Your task to perform on an android device: Clear the shopping cart on walmart. Add "bose soundlink" to the cart on walmart Image 0: 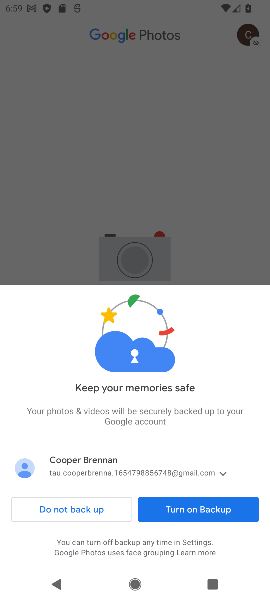
Step 0: press home button
Your task to perform on an android device: Clear the shopping cart on walmart. Add "bose soundlink" to the cart on walmart Image 1: 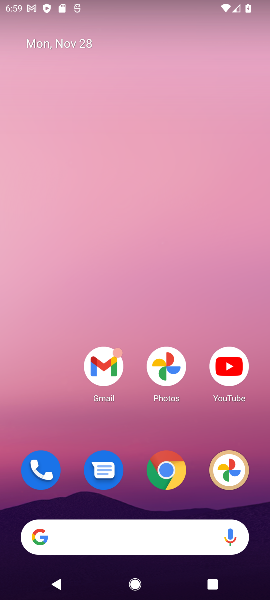
Step 1: click (168, 471)
Your task to perform on an android device: Clear the shopping cart on walmart. Add "bose soundlink" to the cart on walmart Image 2: 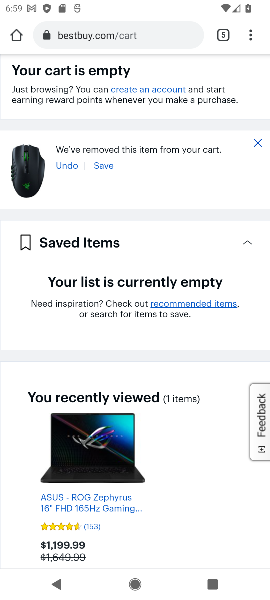
Step 2: click (90, 36)
Your task to perform on an android device: Clear the shopping cart on walmart. Add "bose soundlink" to the cart on walmart Image 3: 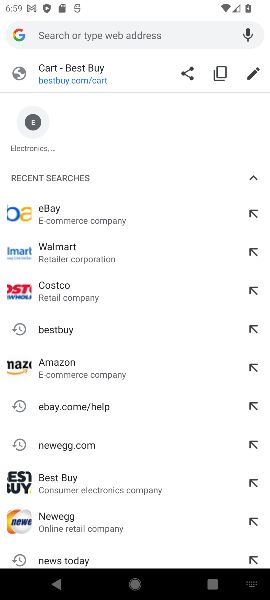
Step 3: click (54, 250)
Your task to perform on an android device: Clear the shopping cart on walmart. Add "bose soundlink" to the cart on walmart Image 4: 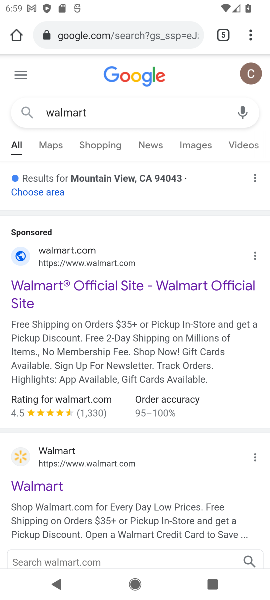
Step 4: click (59, 460)
Your task to perform on an android device: Clear the shopping cart on walmart. Add "bose soundlink" to the cart on walmart Image 5: 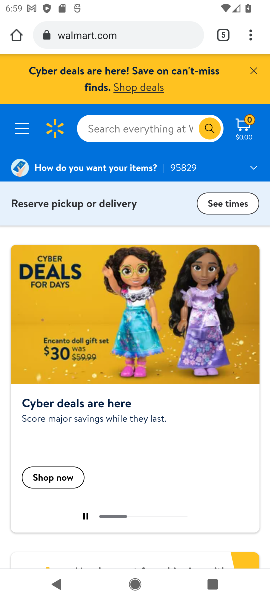
Step 5: click (245, 122)
Your task to perform on an android device: Clear the shopping cart on walmart. Add "bose soundlink" to the cart on walmart Image 6: 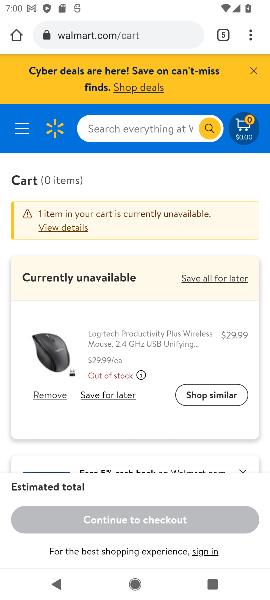
Step 6: click (138, 128)
Your task to perform on an android device: Clear the shopping cart on walmart. Add "bose soundlink" to the cart on walmart Image 7: 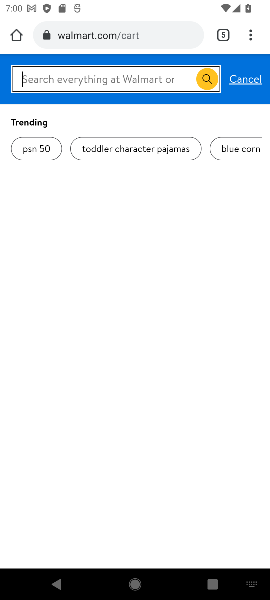
Step 7: type "bose soundlink"
Your task to perform on an android device: Clear the shopping cart on walmart. Add "bose soundlink" to the cart on walmart Image 8: 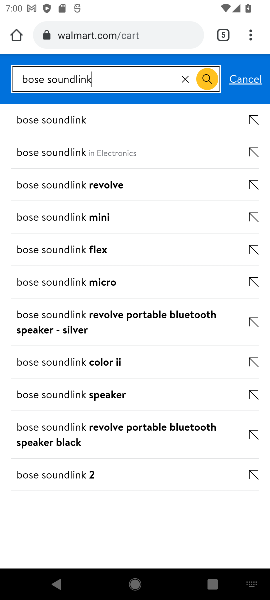
Step 8: click (42, 120)
Your task to perform on an android device: Clear the shopping cart on walmart. Add "bose soundlink" to the cart on walmart Image 9: 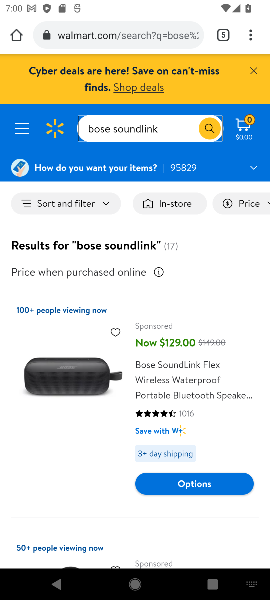
Step 9: click (193, 483)
Your task to perform on an android device: Clear the shopping cart on walmart. Add "bose soundlink" to the cart on walmart Image 10: 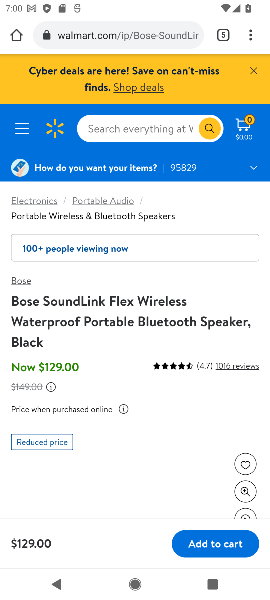
Step 10: click (212, 544)
Your task to perform on an android device: Clear the shopping cart on walmart. Add "bose soundlink" to the cart on walmart Image 11: 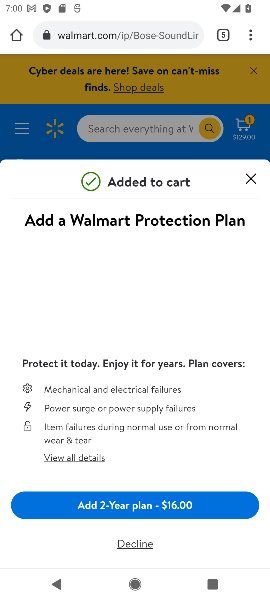
Step 11: task complete